Your task to perform on an android device: add a contact Image 0: 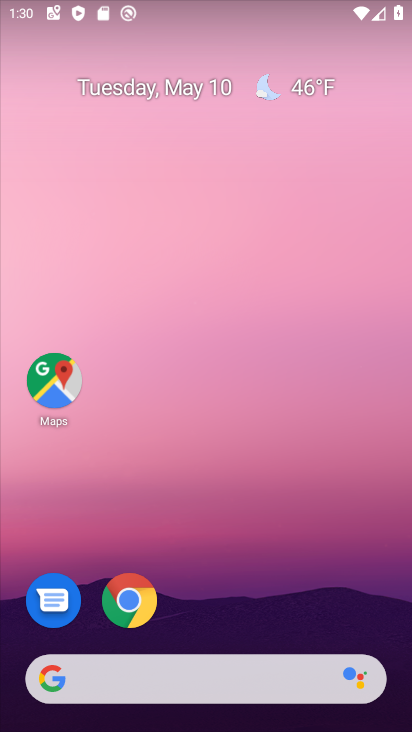
Step 0: press home button
Your task to perform on an android device: add a contact Image 1: 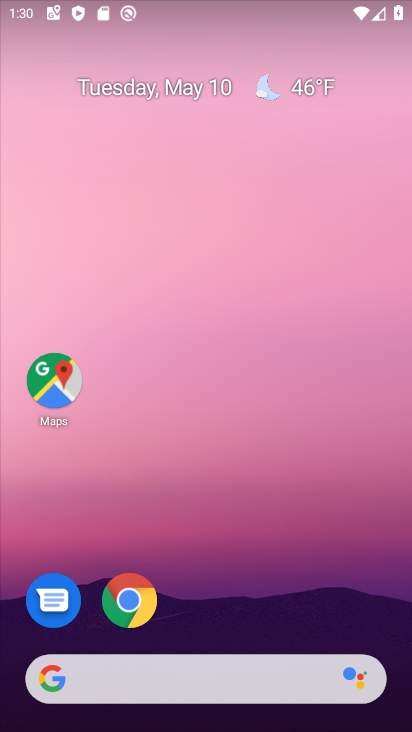
Step 1: drag from (227, 697) to (294, 161)
Your task to perform on an android device: add a contact Image 2: 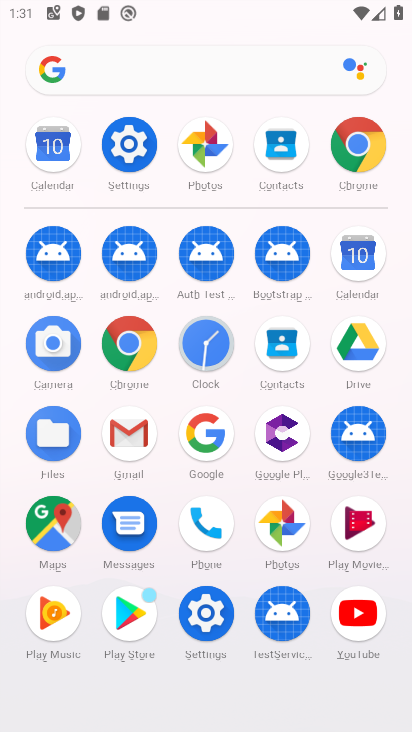
Step 2: click (285, 349)
Your task to perform on an android device: add a contact Image 3: 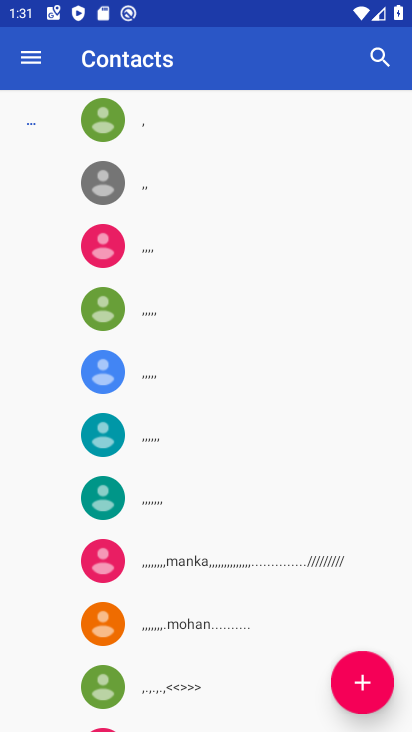
Step 3: click (363, 688)
Your task to perform on an android device: add a contact Image 4: 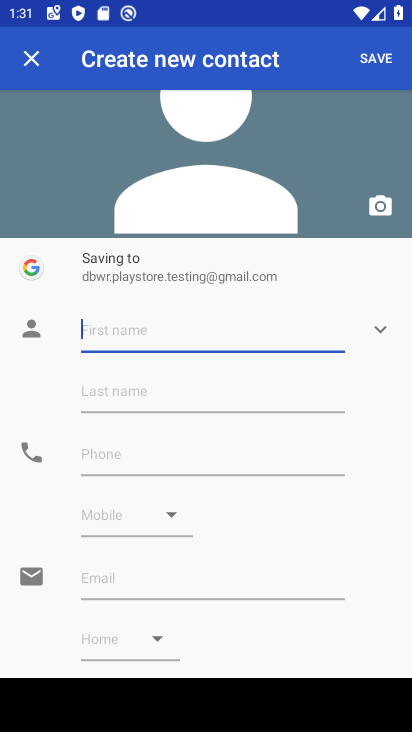
Step 4: type "mkloi"
Your task to perform on an android device: add a contact Image 5: 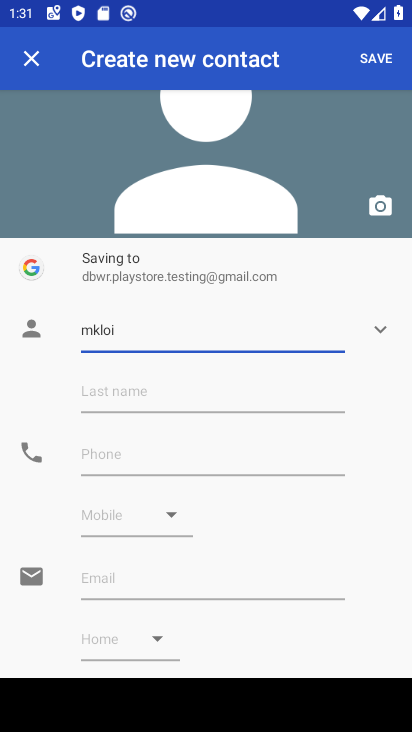
Step 5: click (76, 456)
Your task to perform on an android device: add a contact Image 6: 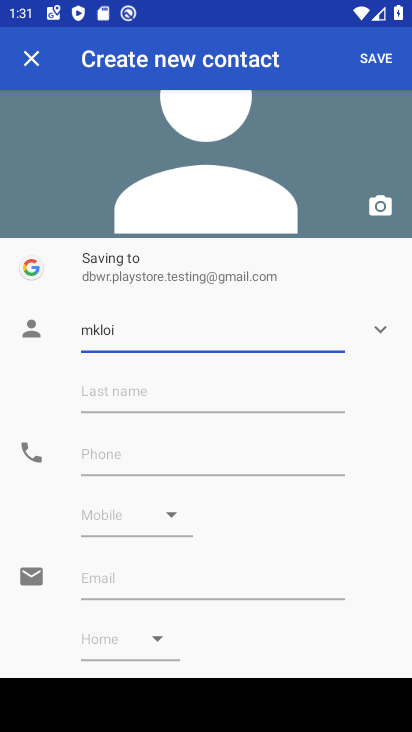
Step 6: click (146, 462)
Your task to perform on an android device: add a contact Image 7: 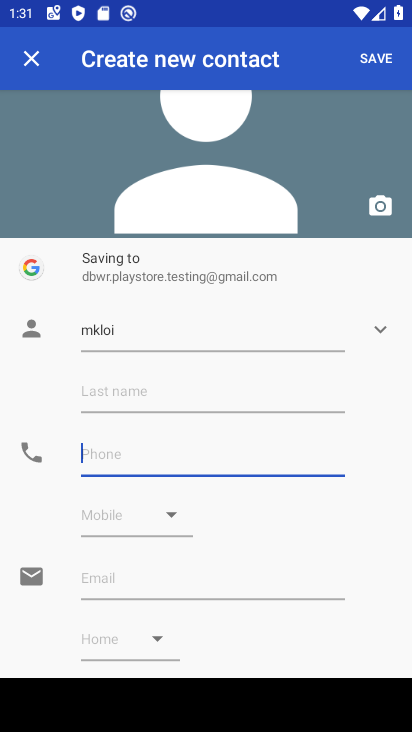
Step 7: type "08798"
Your task to perform on an android device: add a contact Image 8: 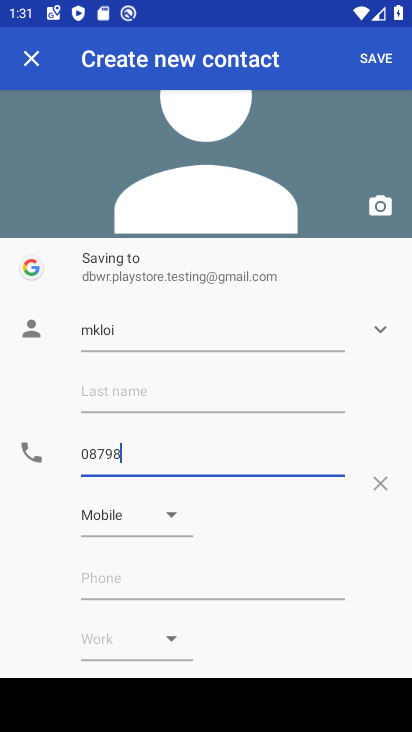
Step 8: click (371, 58)
Your task to perform on an android device: add a contact Image 9: 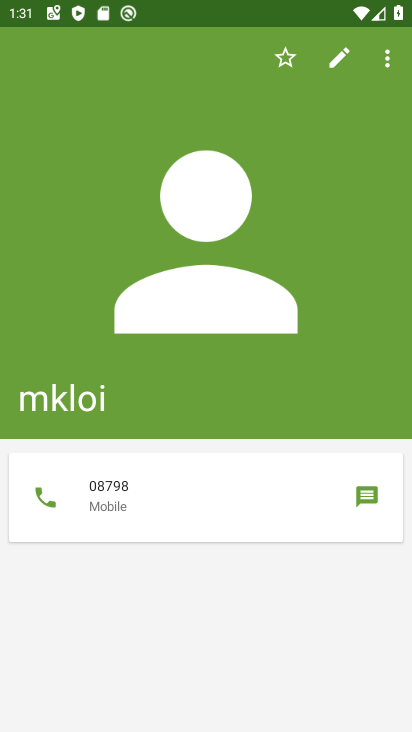
Step 9: task complete